Your task to perform on an android device: Open sound settings Image 0: 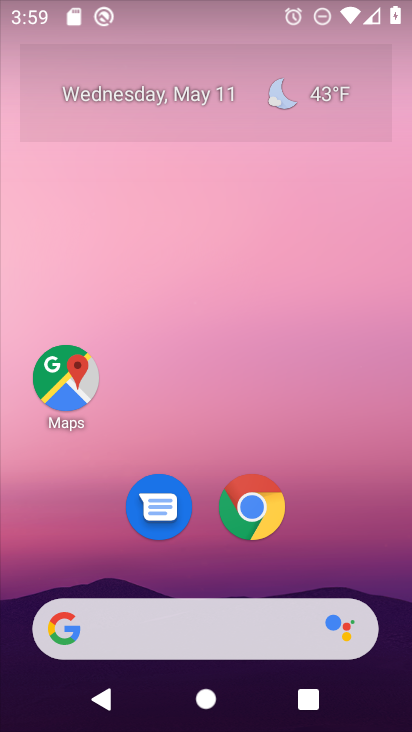
Step 0: drag from (393, 629) to (278, 73)
Your task to perform on an android device: Open sound settings Image 1: 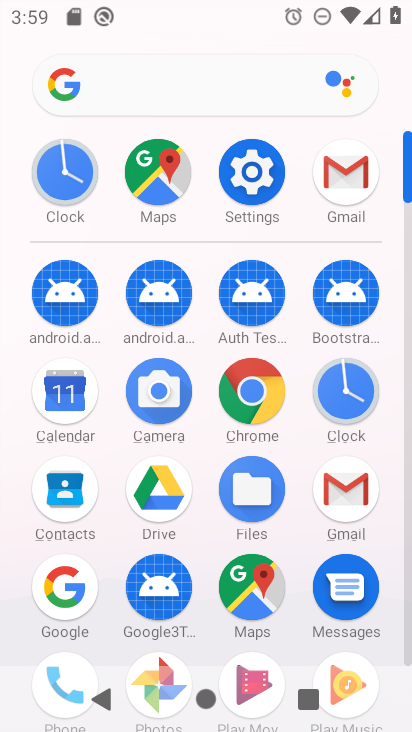
Step 1: click (406, 656)
Your task to perform on an android device: Open sound settings Image 2: 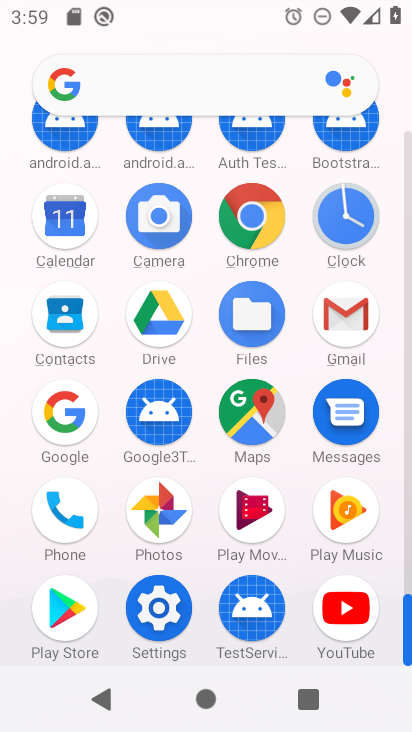
Step 2: click (160, 607)
Your task to perform on an android device: Open sound settings Image 3: 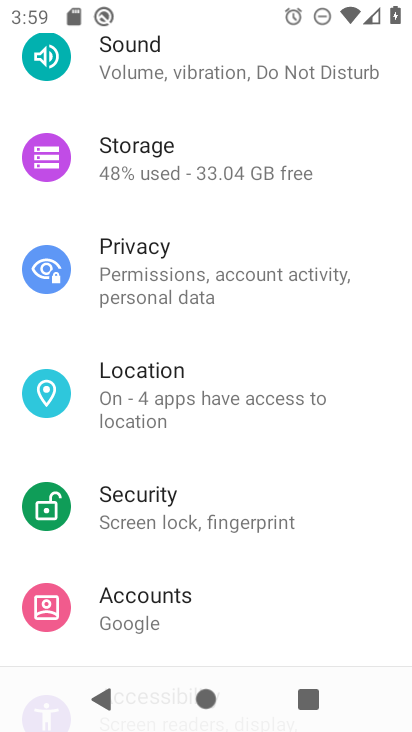
Step 3: drag from (331, 132) to (362, 388)
Your task to perform on an android device: Open sound settings Image 4: 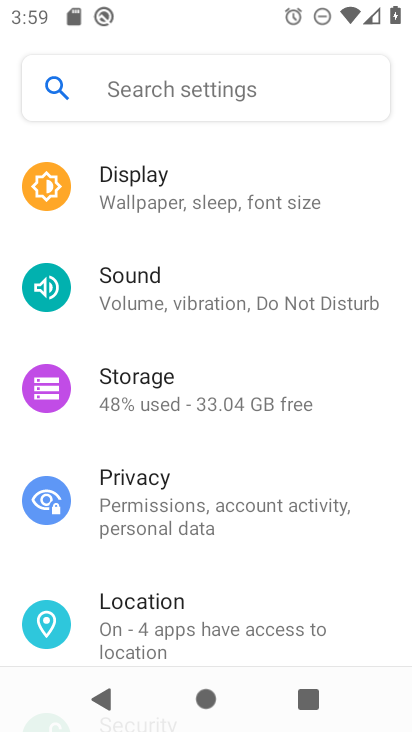
Step 4: click (129, 274)
Your task to perform on an android device: Open sound settings Image 5: 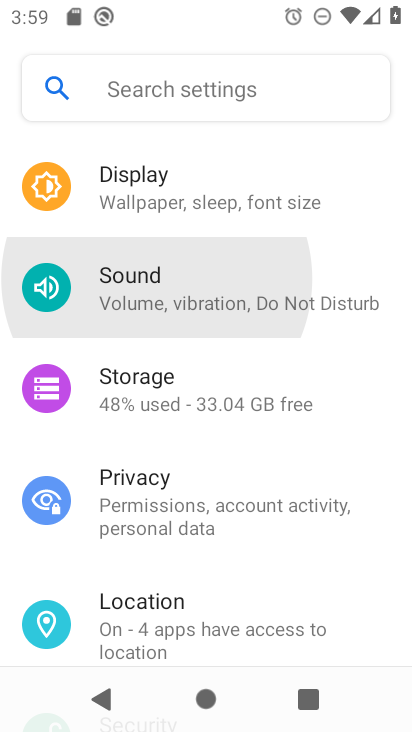
Step 5: click (129, 274)
Your task to perform on an android device: Open sound settings Image 6: 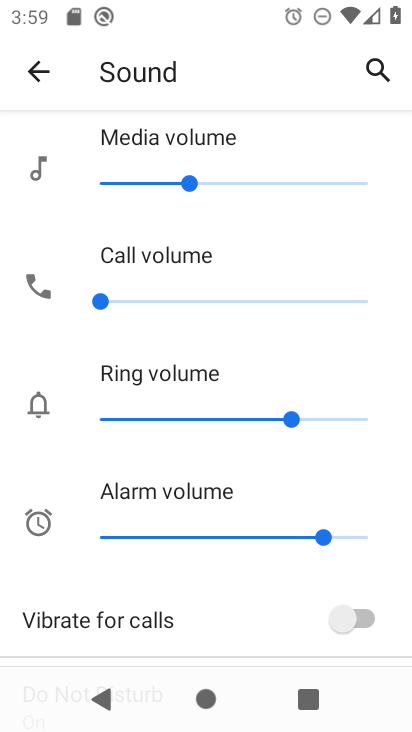
Step 6: drag from (287, 595) to (340, 145)
Your task to perform on an android device: Open sound settings Image 7: 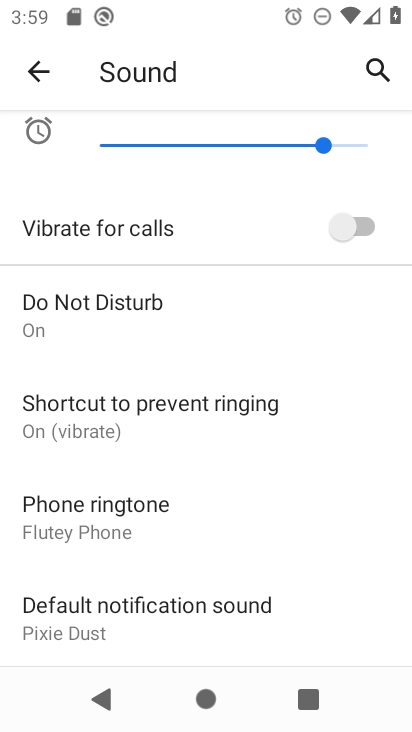
Step 7: drag from (297, 585) to (303, 152)
Your task to perform on an android device: Open sound settings Image 8: 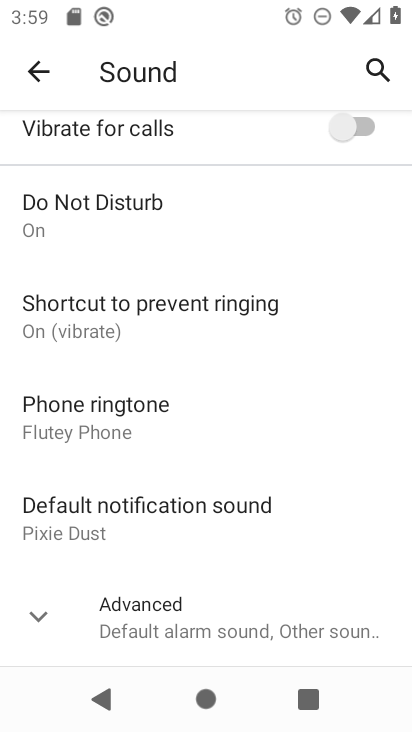
Step 8: click (39, 616)
Your task to perform on an android device: Open sound settings Image 9: 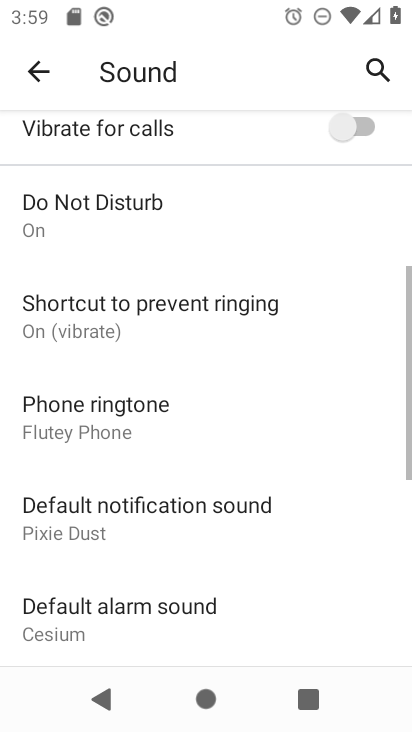
Step 9: task complete